Your task to perform on an android device: turn notification dots on Image 0: 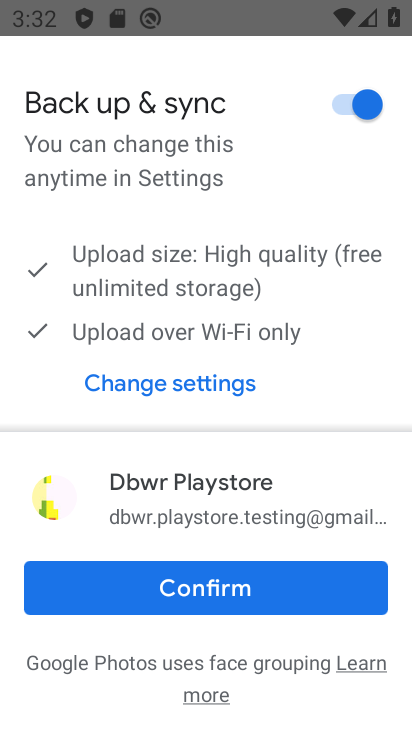
Step 0: press home button
Your task to perform on an android device: turn notification dots on Image 1: 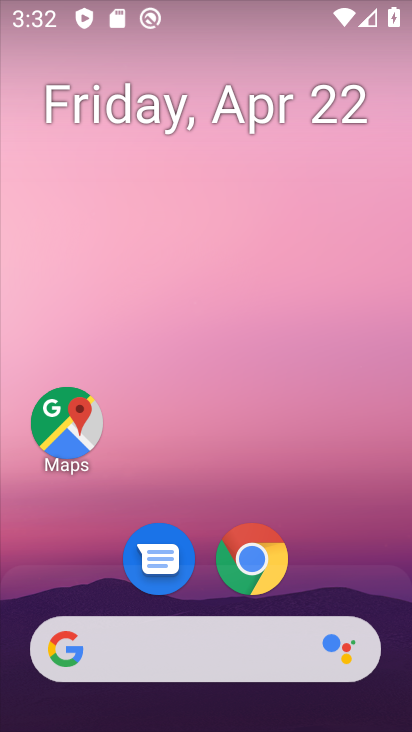
Step 1: drag from (201, 462) to (199, 30)
Your task to perform on an android device: turn notification dots on Image 2: 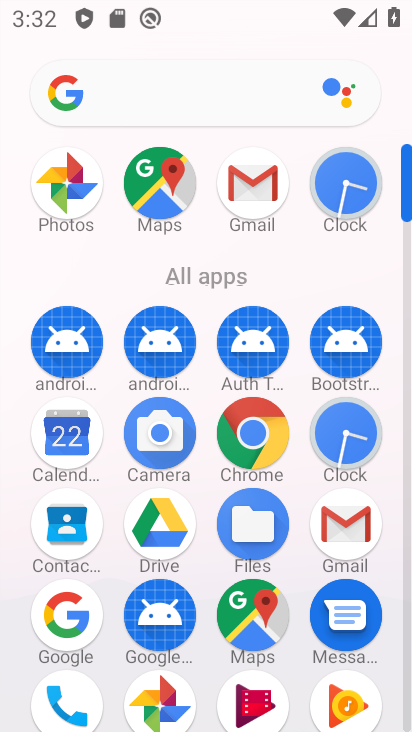
Step 2: drag from (206, 656) to (196, 157)
Your task to perform on an android device: turn notification dots on Image 3: 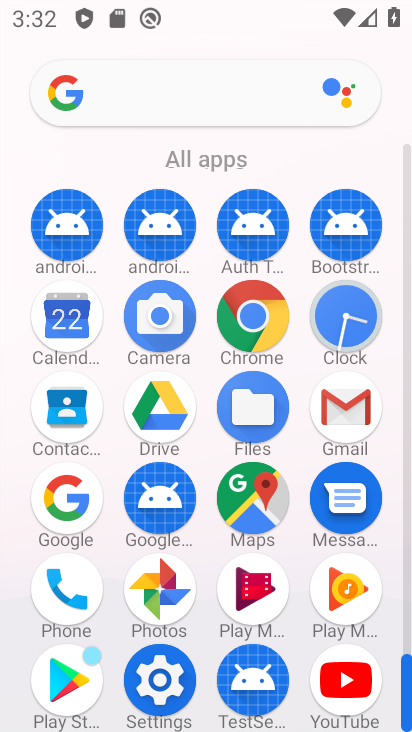
Step 3: click (160, 686)
Your task to perform on an android device: turn notification dots on Image 4: 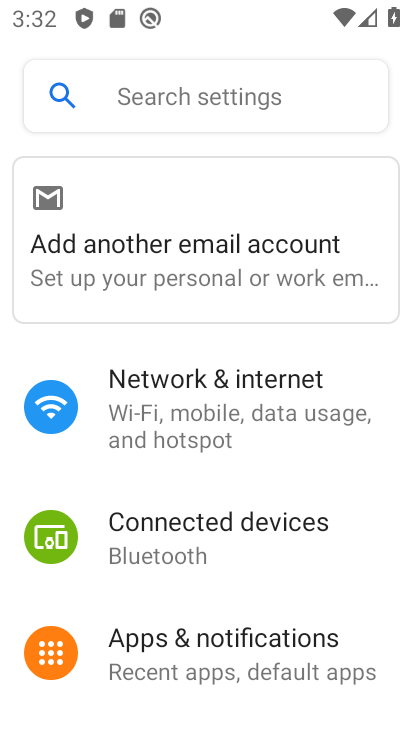
Step 4: click (217, 658)
Your task to perform on an android device: turn notification dots on Image 5: 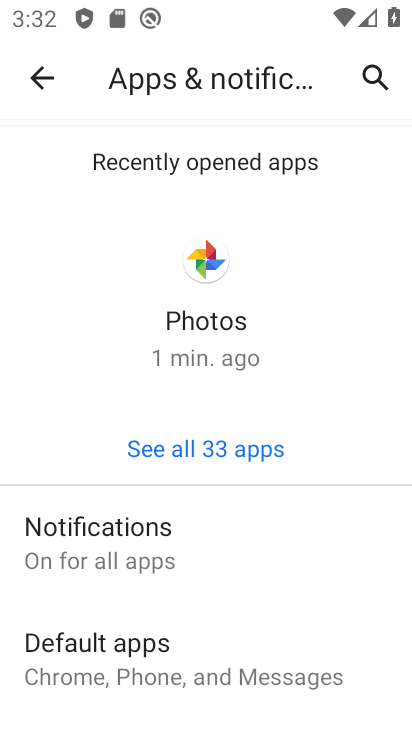
Step 5: drag from (207, 627) to (174, 101)
Your task to perform on an android device: turn notification dots on Image 6: 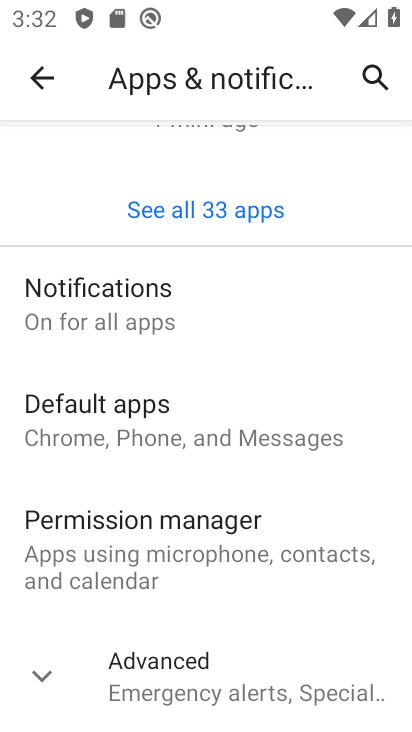
Step 6: drag from (230, 611) to (255, 143)
Your task to perform on an android device: turn notification dots on Image 7: 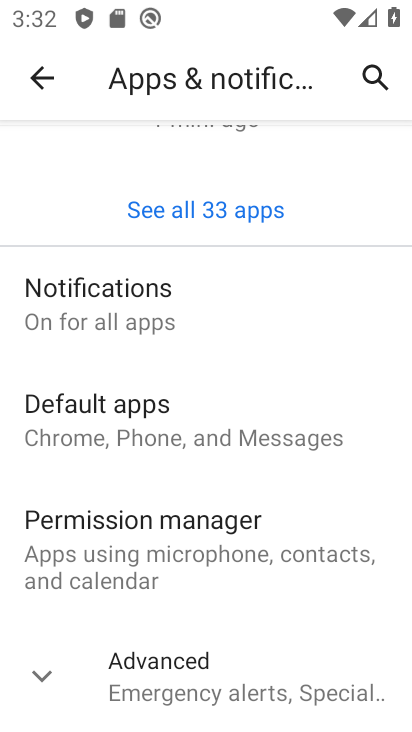
Step 7: click (166, 665)
Your task to perform on an android device: turn notification dots on Image 8: 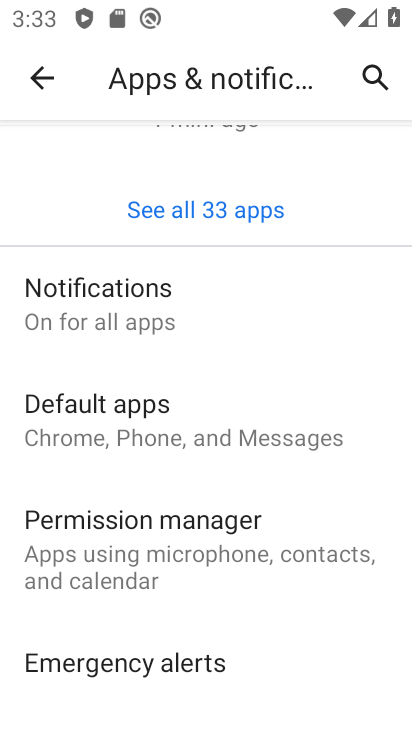
Step 8: drag from (184, 694) to (182, 150)
Your task to perform on an android device: turn notification dots on Image 9: 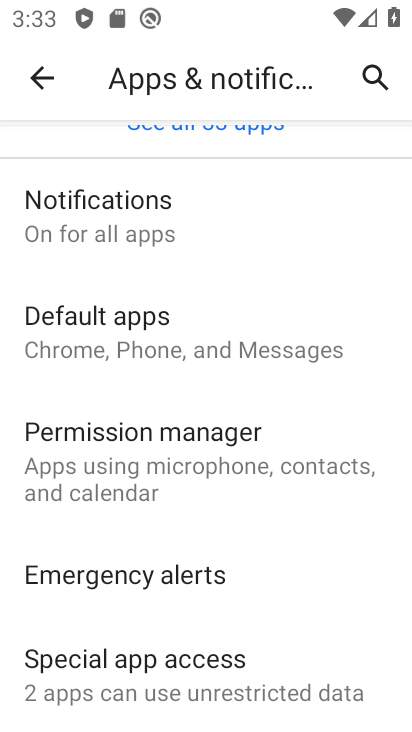
Step 9: click (178, 250)
Your task to perform on an android device: turn notification dots on Image 10: 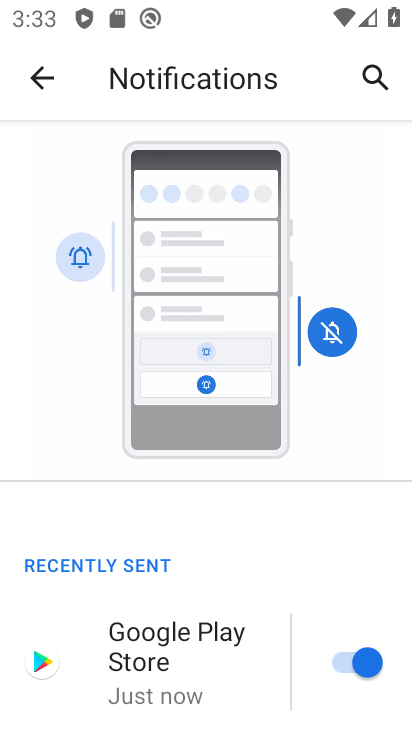
Step 10: drag from (225, 680) to (186, 122)
Your task to perform on an android device: turn notification dots on Image 11: 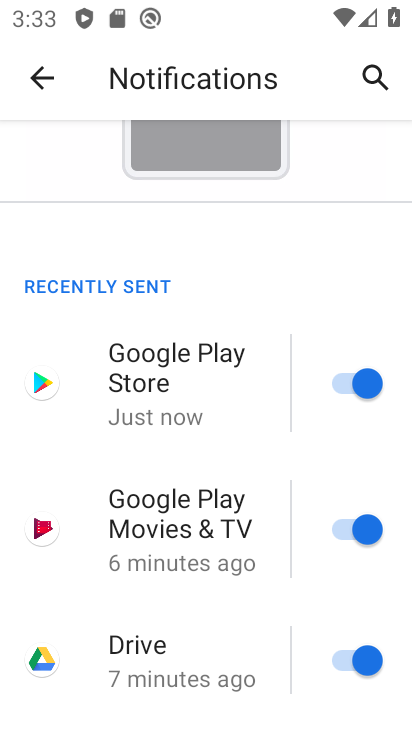
Step 11: drag from (227, 606) to (233, 174)
Your task to perform on an android device: turn notification dots on Image 12: 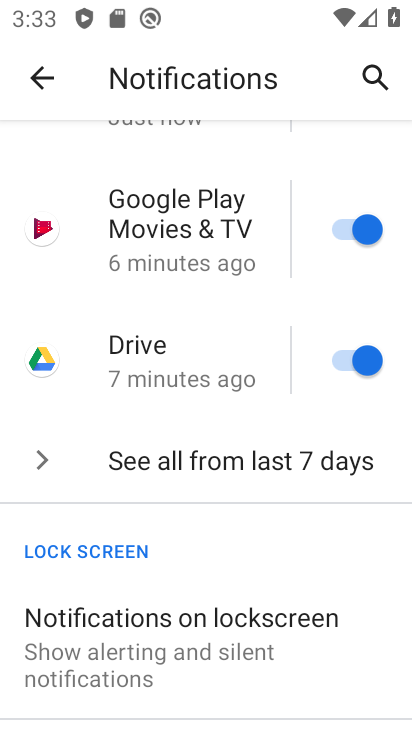
Step 12: drag from (198, 679) to (201, 157)
Your task to perform on an android device: turn notification dots on Image 13: 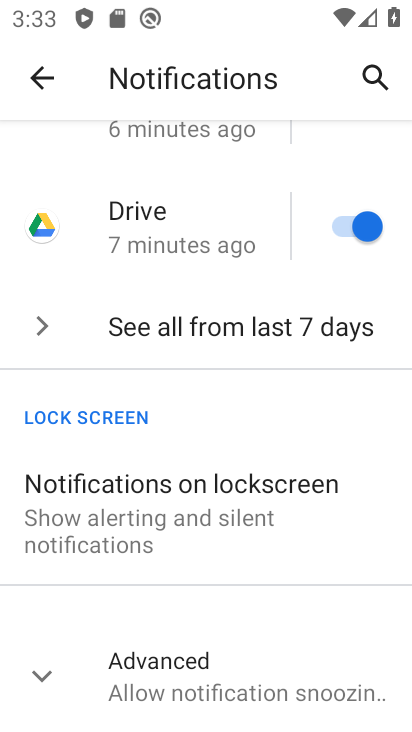
Step 13: click (177, 673)
Your task to perform on an android device: turn notification dots on Image 14: 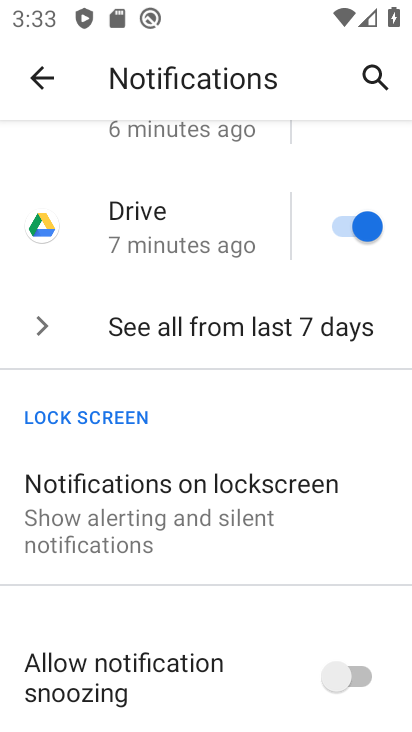
Step 14: task complete